Your task to perform on an android device: Do I have any events tomorrow? Image 0: 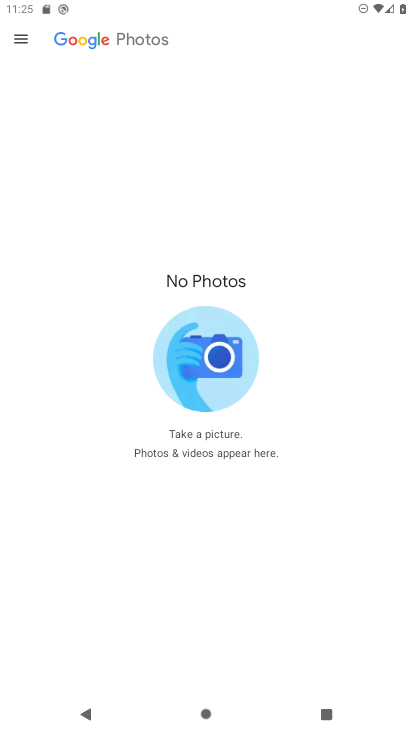
Step 0: press home button
Your task to perform on an android device: Do I have any events tomorrow? Image 1: 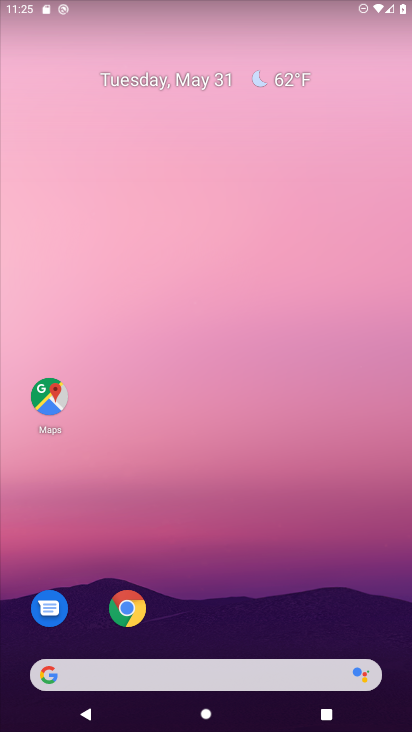
Step 1: drag from (347, 646) to (337, 88)
Your task to perform on an android device: Do I have any events tomorrow? Image 2: 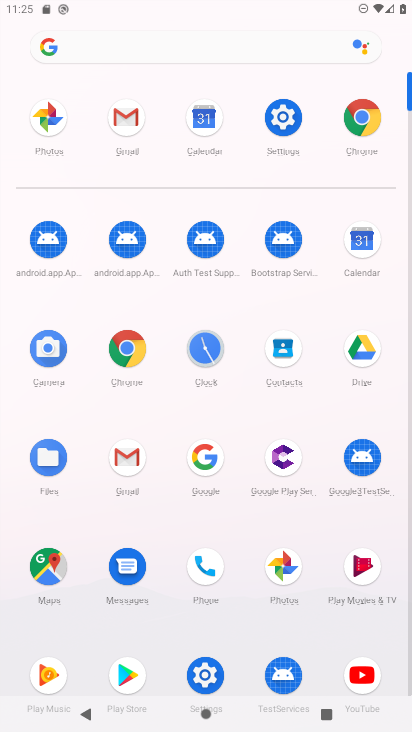
Step 2: click (124, 362)
Your task to perform on an android device: Do I have any events tomorrow? Image 3: 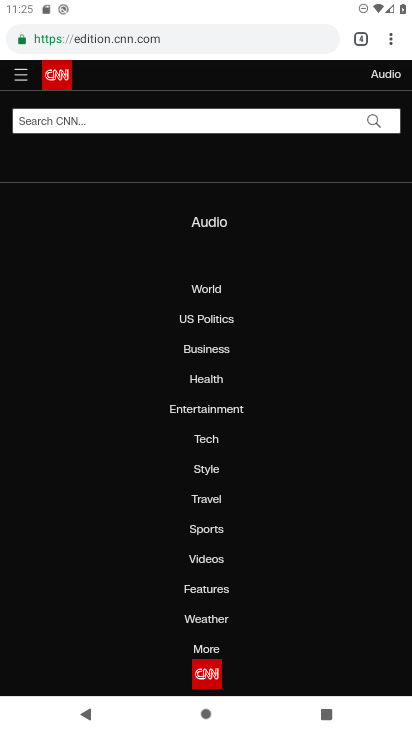
Step 3: click (144, 48)
Your task to perform on an android device: Do I have any events tomorrow? Image 4: 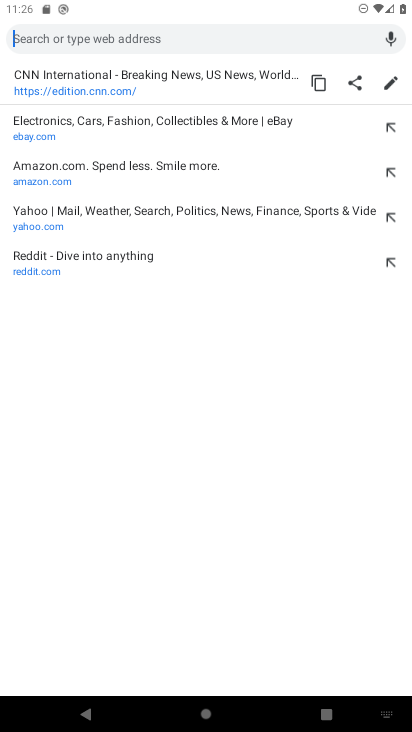
Step 4: type "do i have any events tomorrow"
Your task to perform on an android device: Do I have any events tomorrow? Image 5: 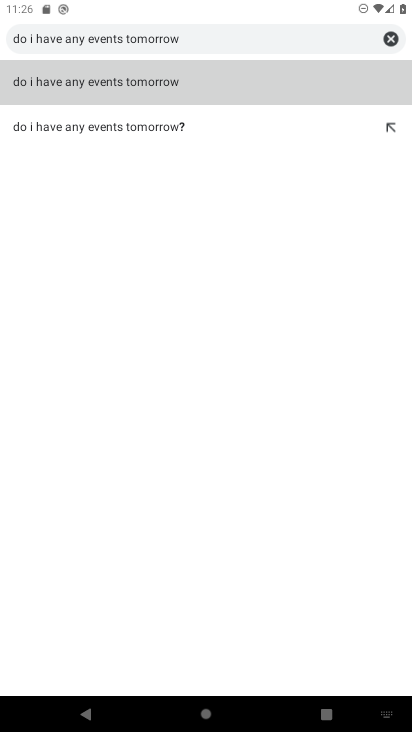
Step 5: click (110, 81)
Your task to perform on an android device: Do I have any events tomorrow? Image 6: 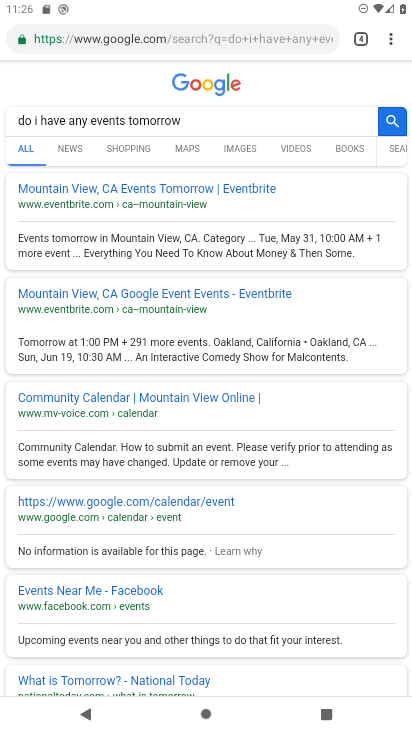
Step 6: task complete